Your task to perform on an android device: Open settings on Google Maps Image 0: 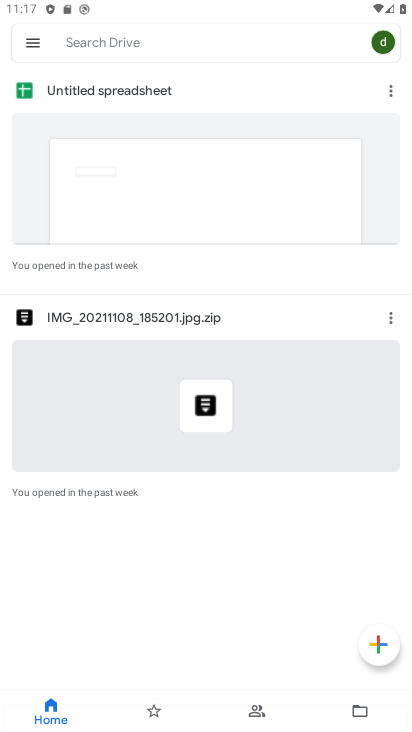
Step 0: press home button
Your task to perform on an android device: Open settings on Google Maps Image 1: 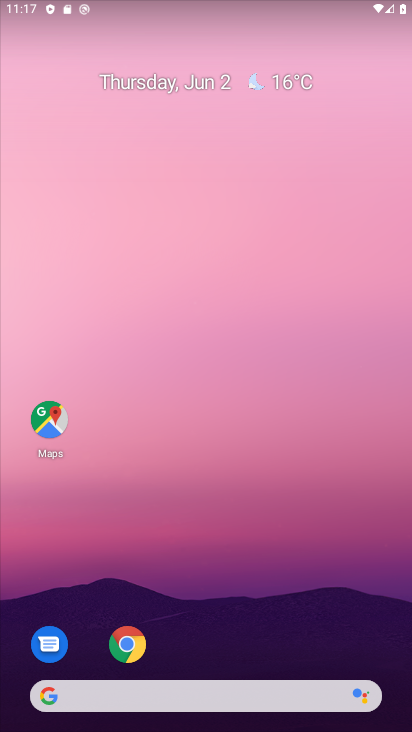
Step 1: drag from (196, 651) to (271, 286)
Your task to perform on an android device: Open settings on Google Maps Image 2: 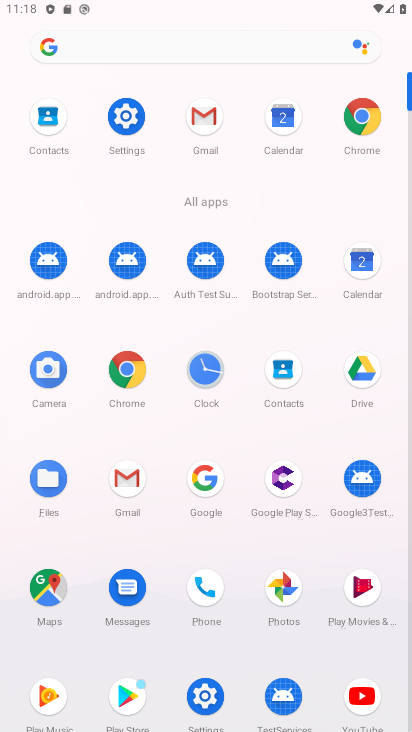
Step 2: click (210, 698)
Your task to perform on an android device: Open settings on Google Maps Image 3: 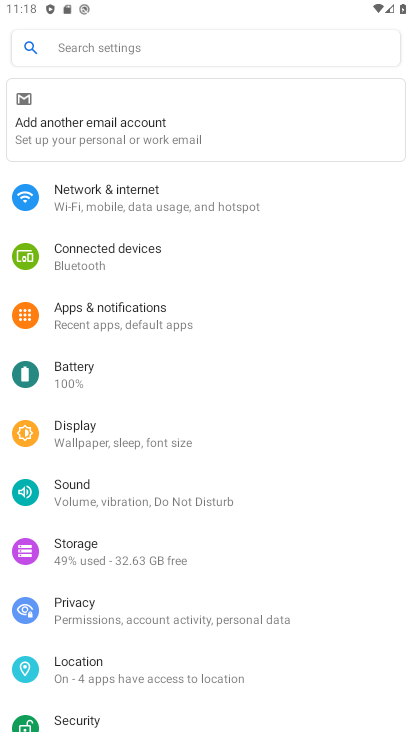
Step 3: press home button
Your task to perform on an android device: Open settings on Google Maps Image 4: 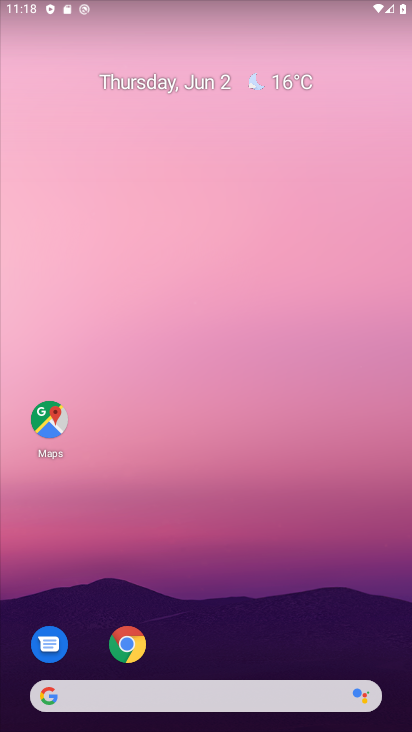
Step 4: drag from (168, 632) to (244, 221)
Your task to perform on an android device: Open settings on Google Maps Image 5: 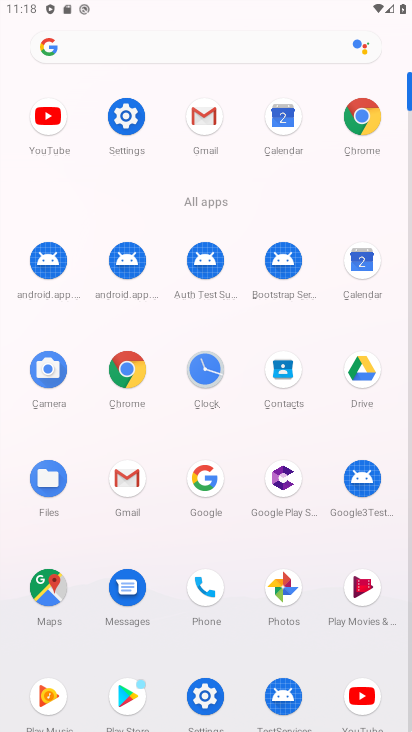
Step 5: click (35, 596)
Your task to perform on an android device: Open settings on Google Maps Image 6: 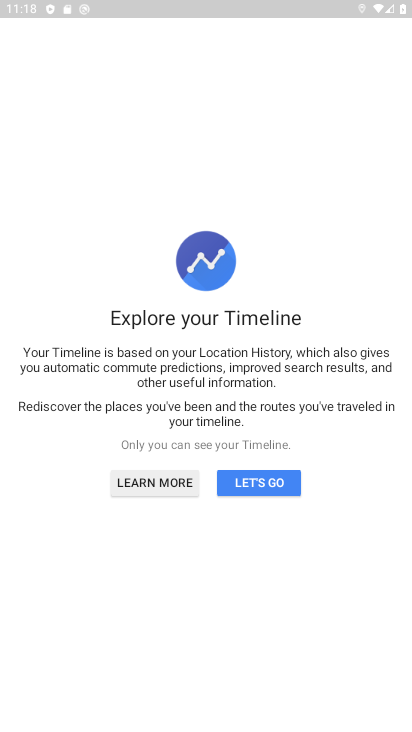
Step 6: click (278, 489)
Your task to perform on an android device: Open settings on Google Maps Image 7: 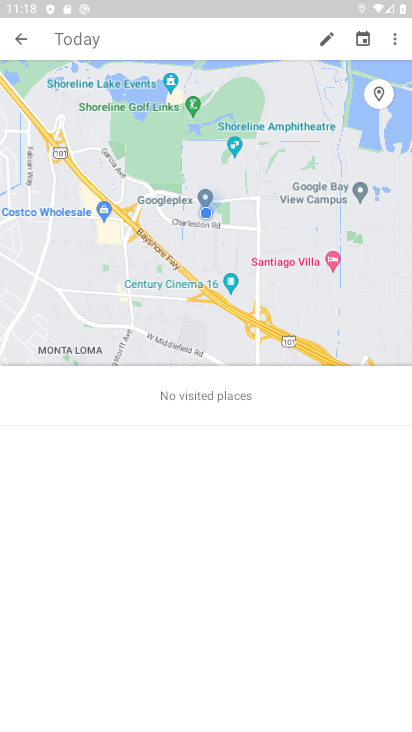
Step 7: click (21, 43)
Your task to perform on an android device: Open settings on Google Maps Image 8: 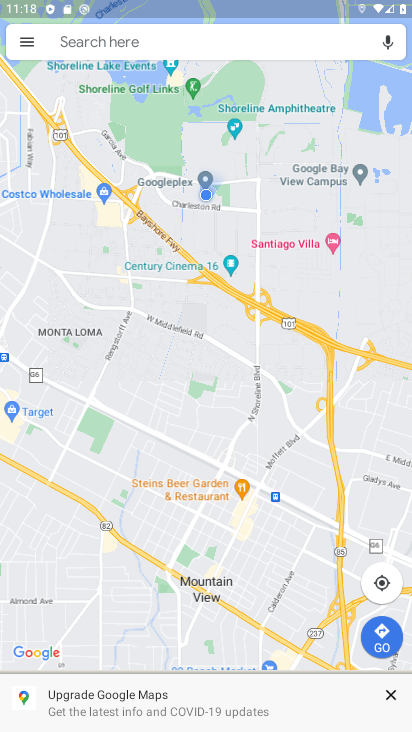
Step 8: click (21, 42)
Your task to perform on an android device: Open settings on Google Maps Image 9: 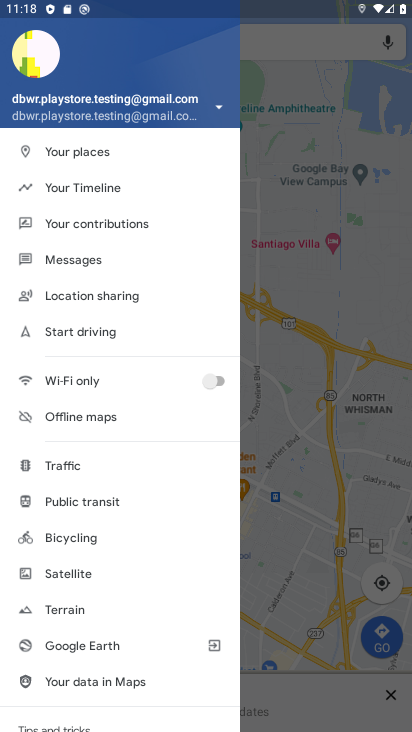
Step 9: drag from (116, 609) to (183, 228)
Your task to perform on an android device: Open settings on Google Maps Image 10: 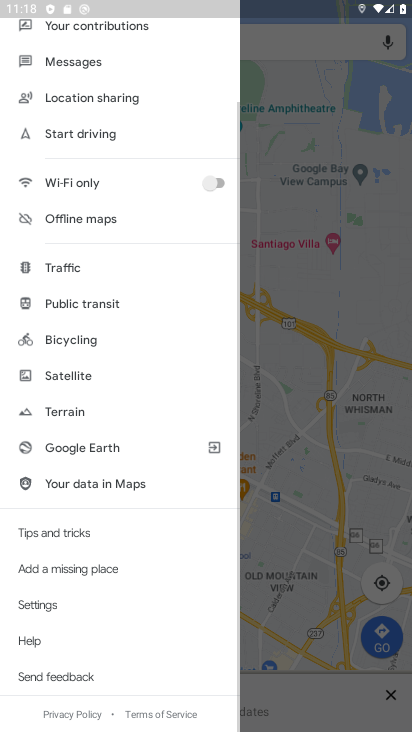
Step 10: click (24, 608)
Your task to perform on an android device: Open settings on Google Maps Image 11: 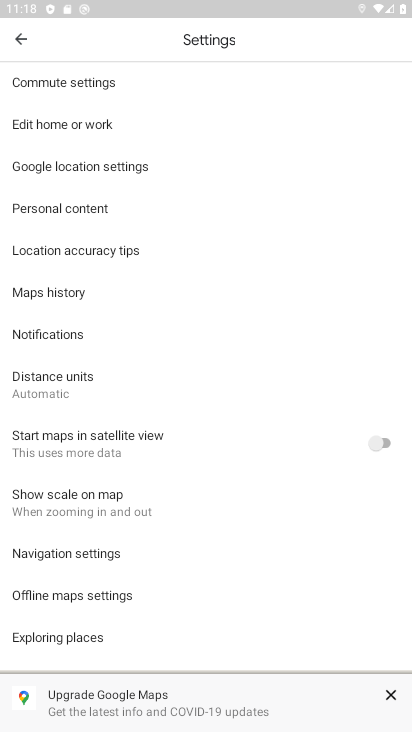
Step 11: task complete